Your task to perform on an android device: change keyboard looks Image 0: 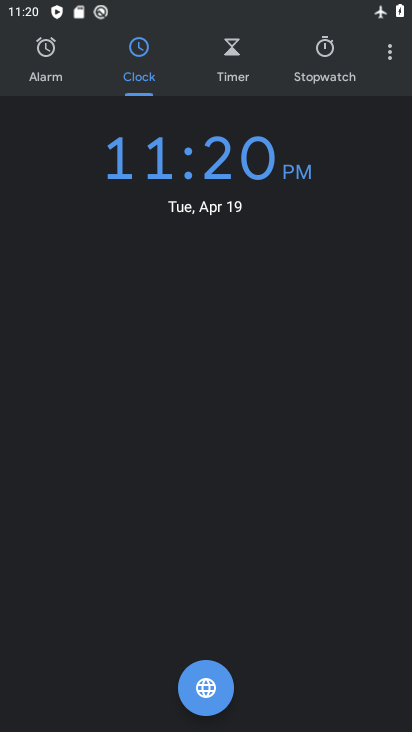
Step 0: press home button
Your task to perform on an android device: change keyboard looks Image 1: 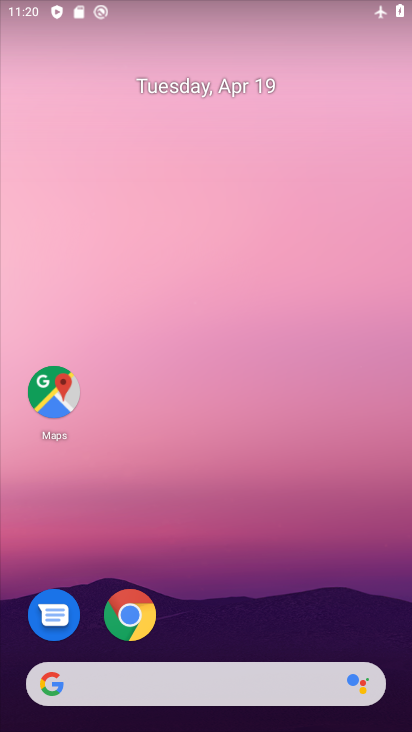
Step 1: drag from (202, 537) to (202, 130)
Your task to perform on an android device: change keyboard looks Image 2: 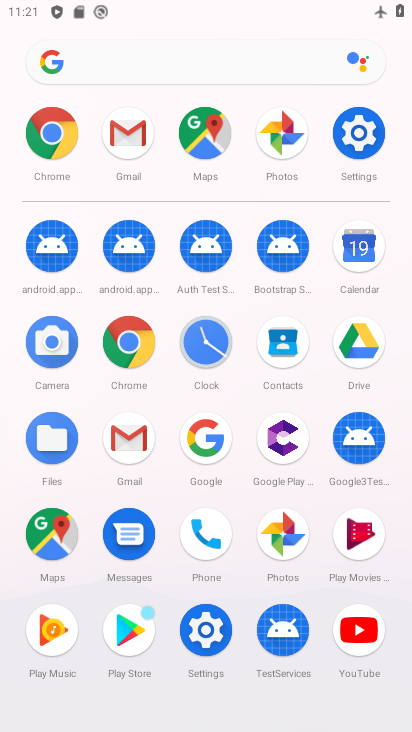
Step 2: click (344, 146)
Your task to perform on an android device: change keyboard looks Image 3: 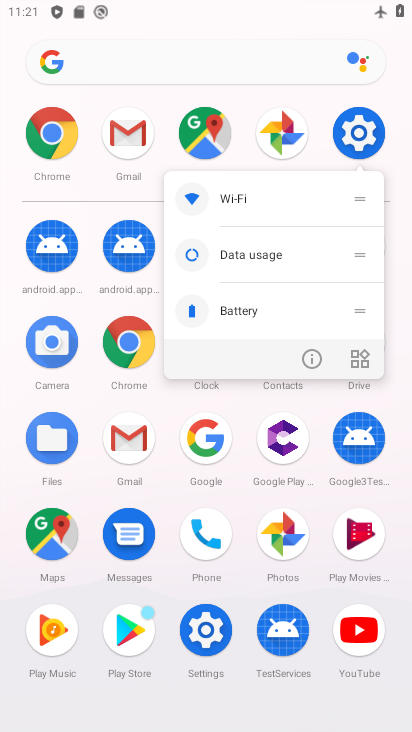
Step 3: click (205, 620)
Your task to perform on an android device: change keyboard looks Image 4: 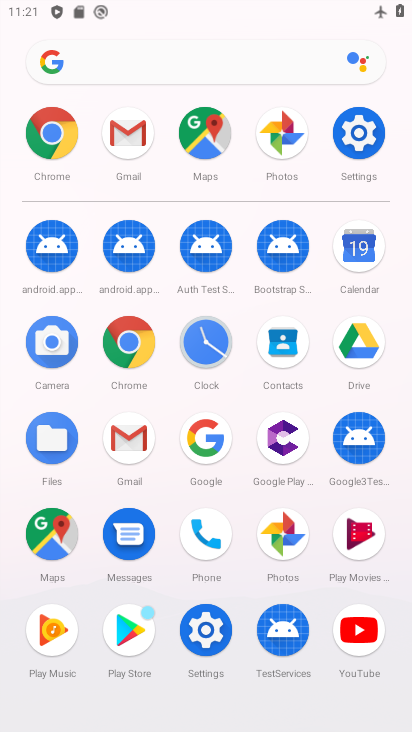
Step 4: click (207, 627)
Your task to perform on an android device: change keyboard looks Image 5: 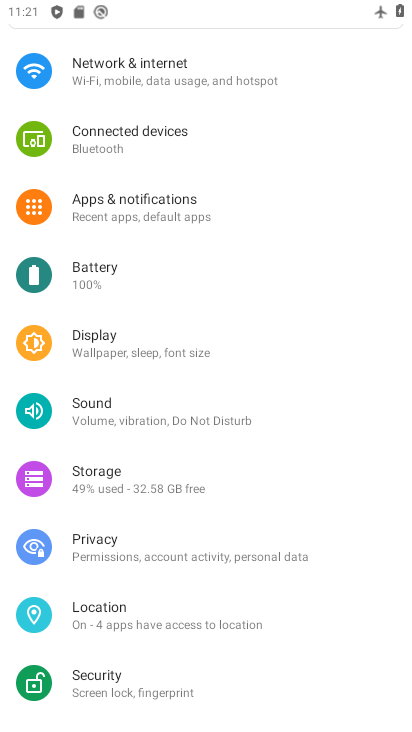
Step 5: drag from (225, 658) to (229, 380)
Your task to perform on an android device: change keyboard looks Image 6: 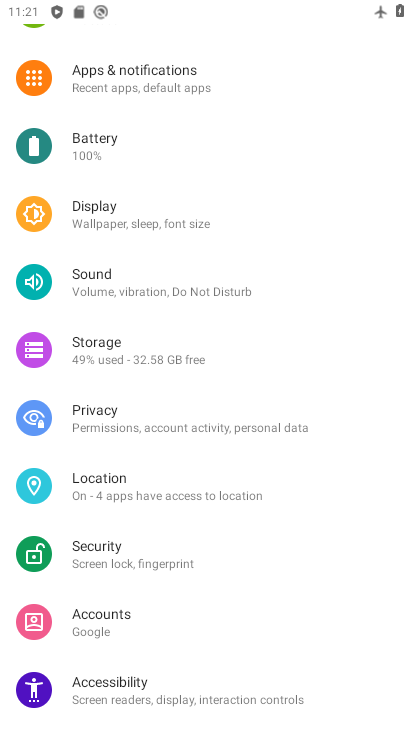
Step 6: drag from (220, 665) to (258, 323)
Your task to perform on an android device: change keyboard looks Image 7: 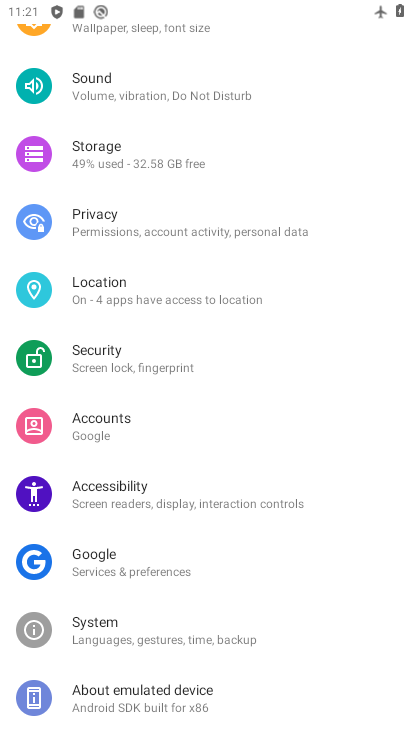
Step 7: click (143, 636)
Your task to perform on an android device: change keyboard looks Image 8: 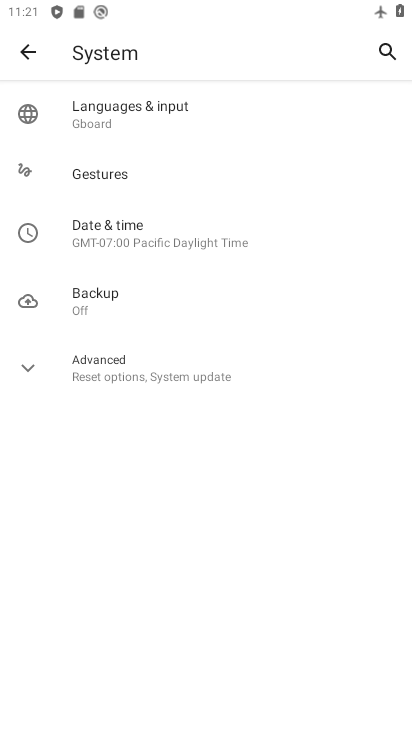
Step 8: click (138, 113)
Your task to perform on an android device: change keyboard looks Image 9: 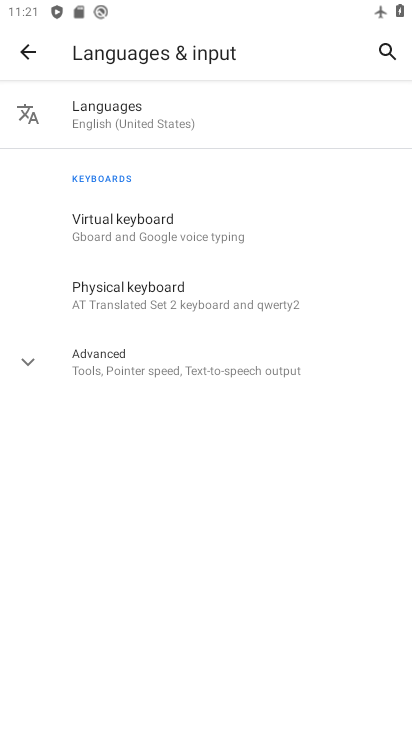
Step 9: click (140, 232)
Your task to perform on an android device: change keyboard looks Image 10: 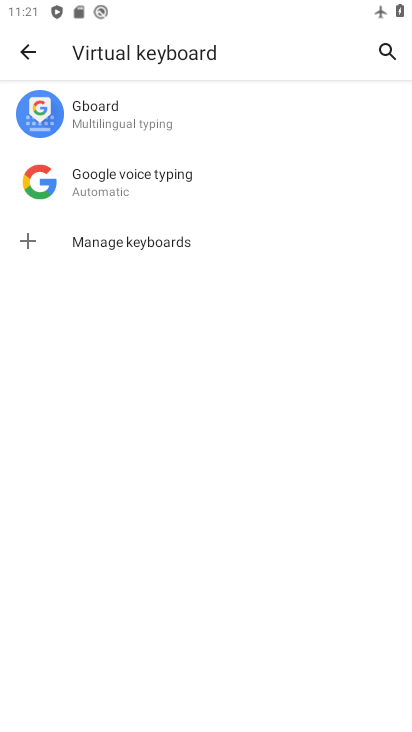
Step 10: click (133, 113)
Your task to perform on an android device: change keyboard looks Image 11: 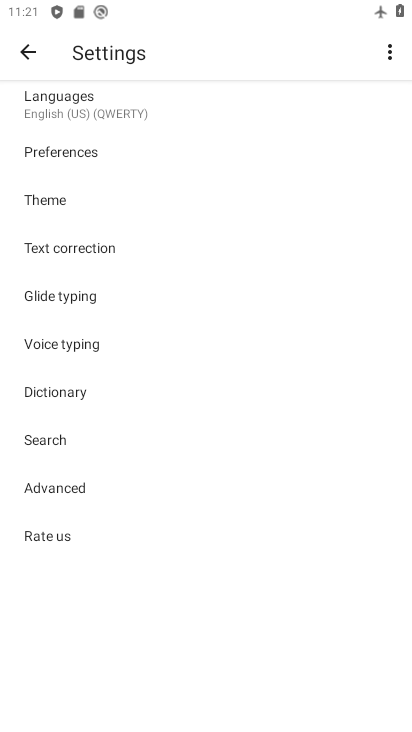
Step 11: click (62, 204)
Your task to perform on an android device: change keyboard looks Image 12: 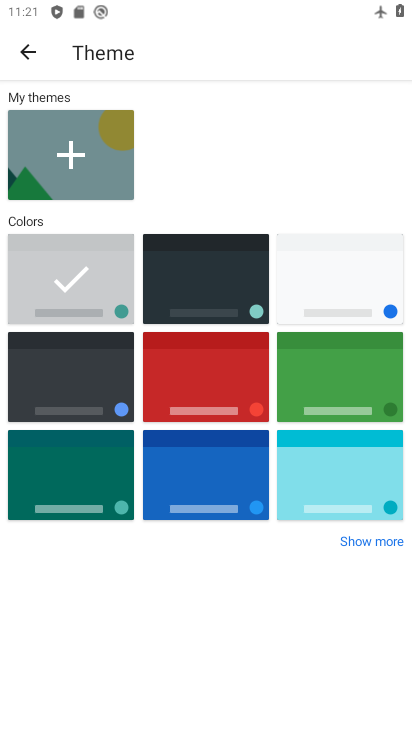
Step 12: click (179, 274)
Your task to perform on an android device: change keyboard looks Image 13: 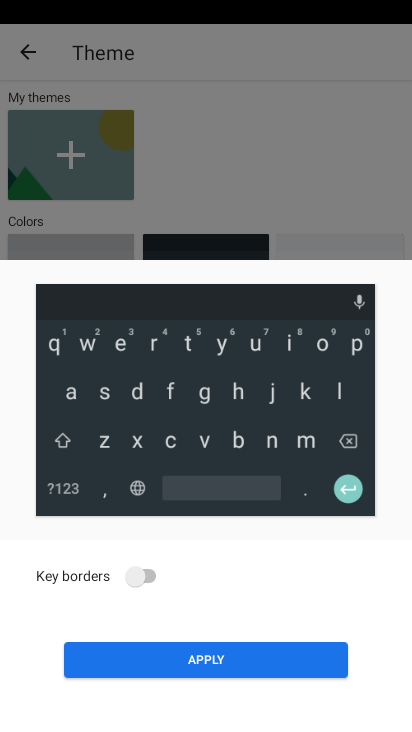
Step 13: click (275, 655)
Your task to perform on an android device: change keyboard looks Image 14: 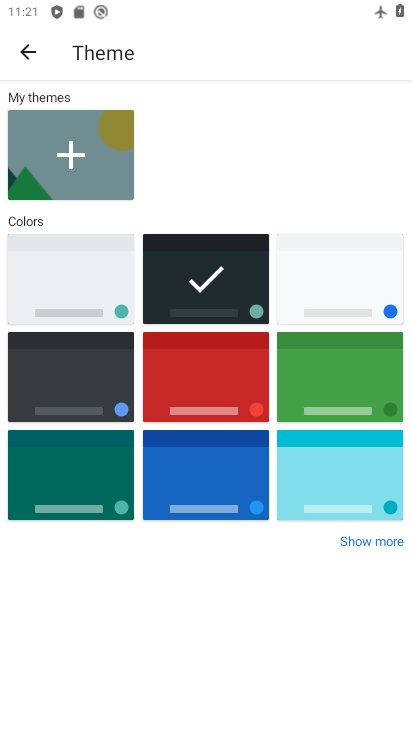
Step 14: task complete